Your task to perform on an android device: Go to Reddit.com Image 0: 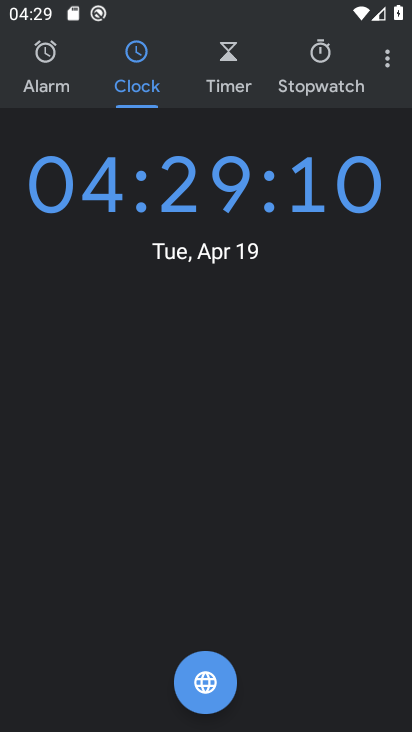
Step 0: press home button
Your task to perform on an android device: Go to Reddit.com Image 1: 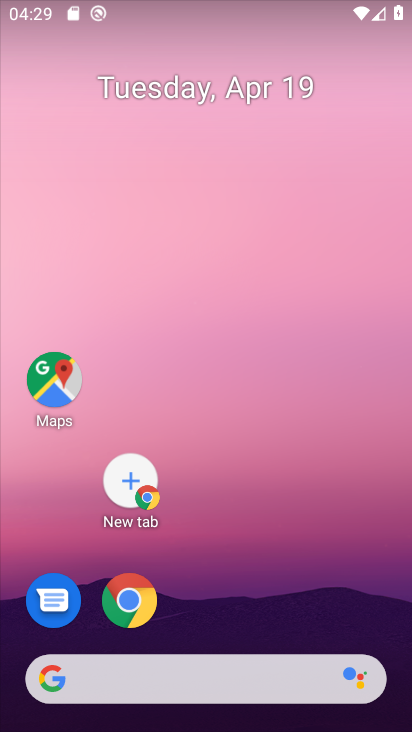
Step 1: click (132, 613)
Your task to perform on an android device: Go to Reddit.com Image 2: 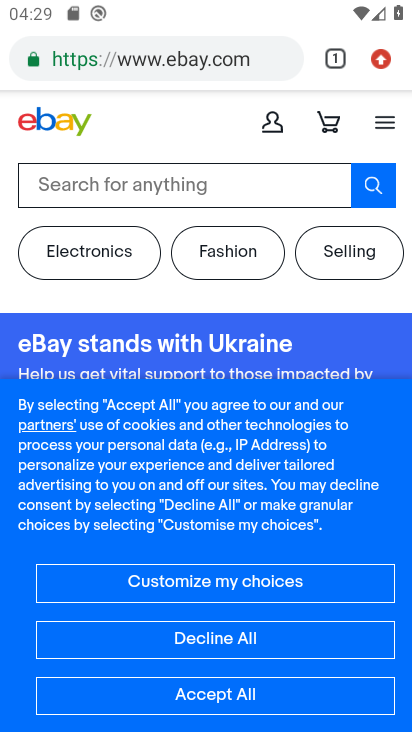
Step 2: click (280, 61)
Your task to perform on an android device: Go to Reddit.com Image 3: 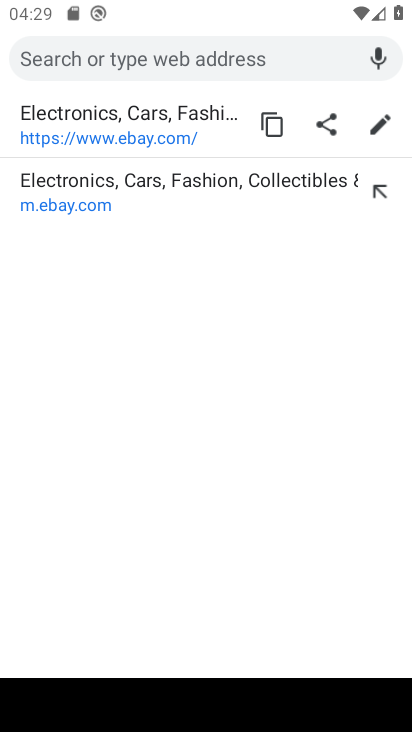
Step 3: type "reddit.com"
Your task to perform on an android device: Go to Reddit.com Image 4: 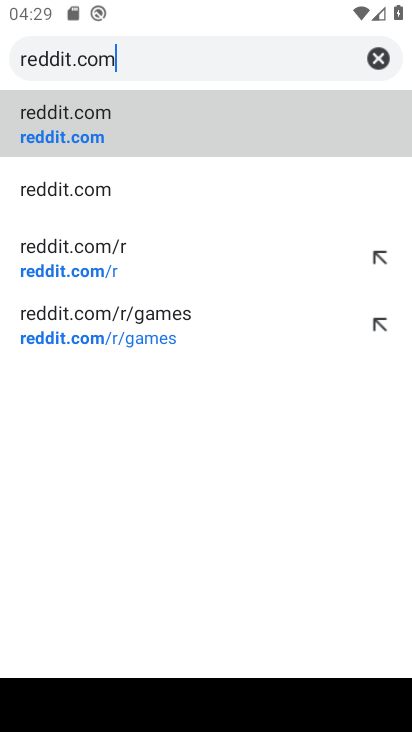
Step 4: click (206, 113)
Your task to perform on an android device: Go to Reddit.com Image 5: 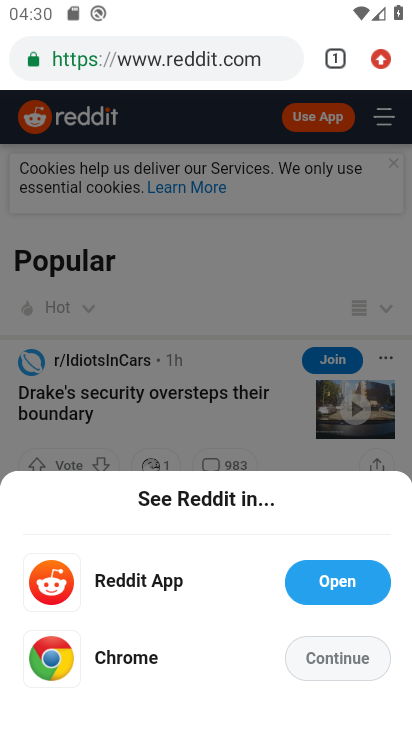
Step 5: task complete